Your task to perform on an android device: open app "Adobe Acrobat Reader: Edit PDF" Image 0: 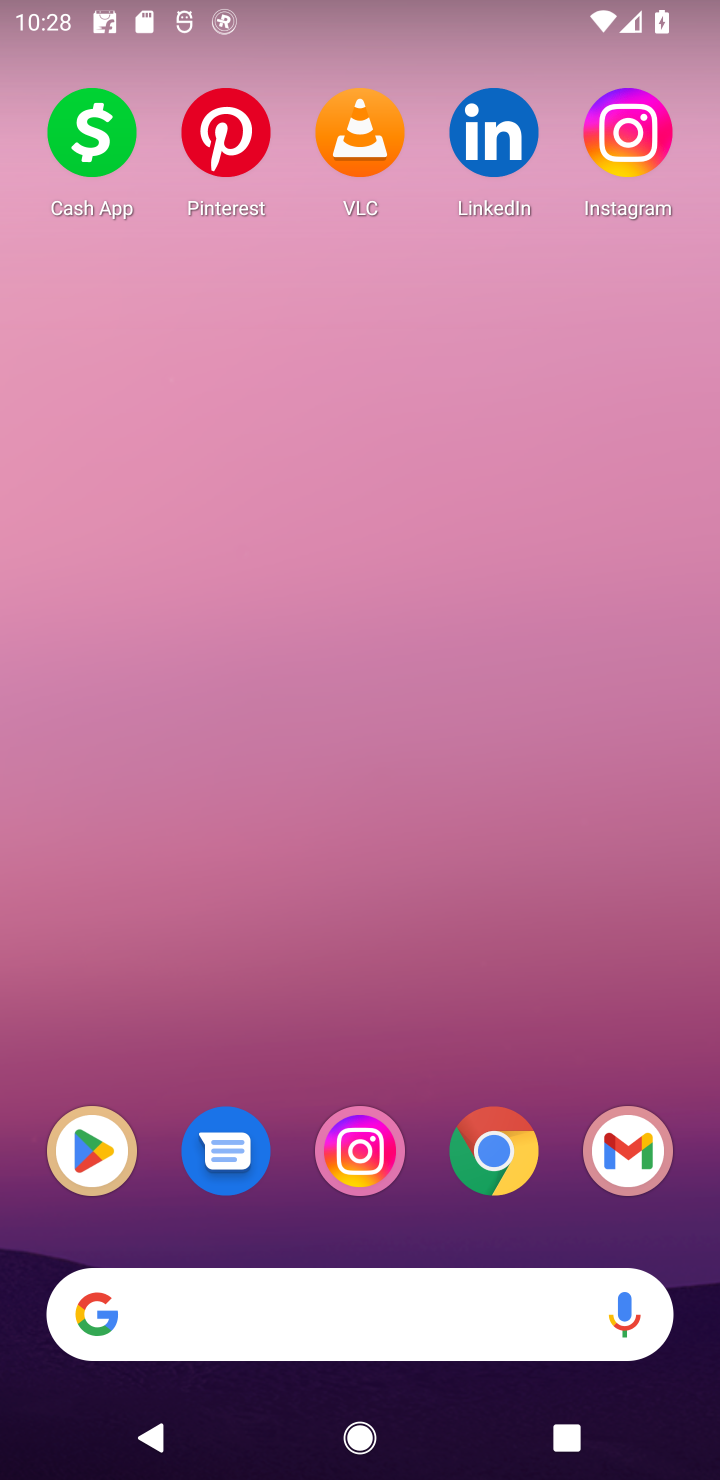
Step 0: click (76, 1121)
Your task to perform on an android device: open app "Adobe Acrobat Reader: Edit PDF" Image 1: 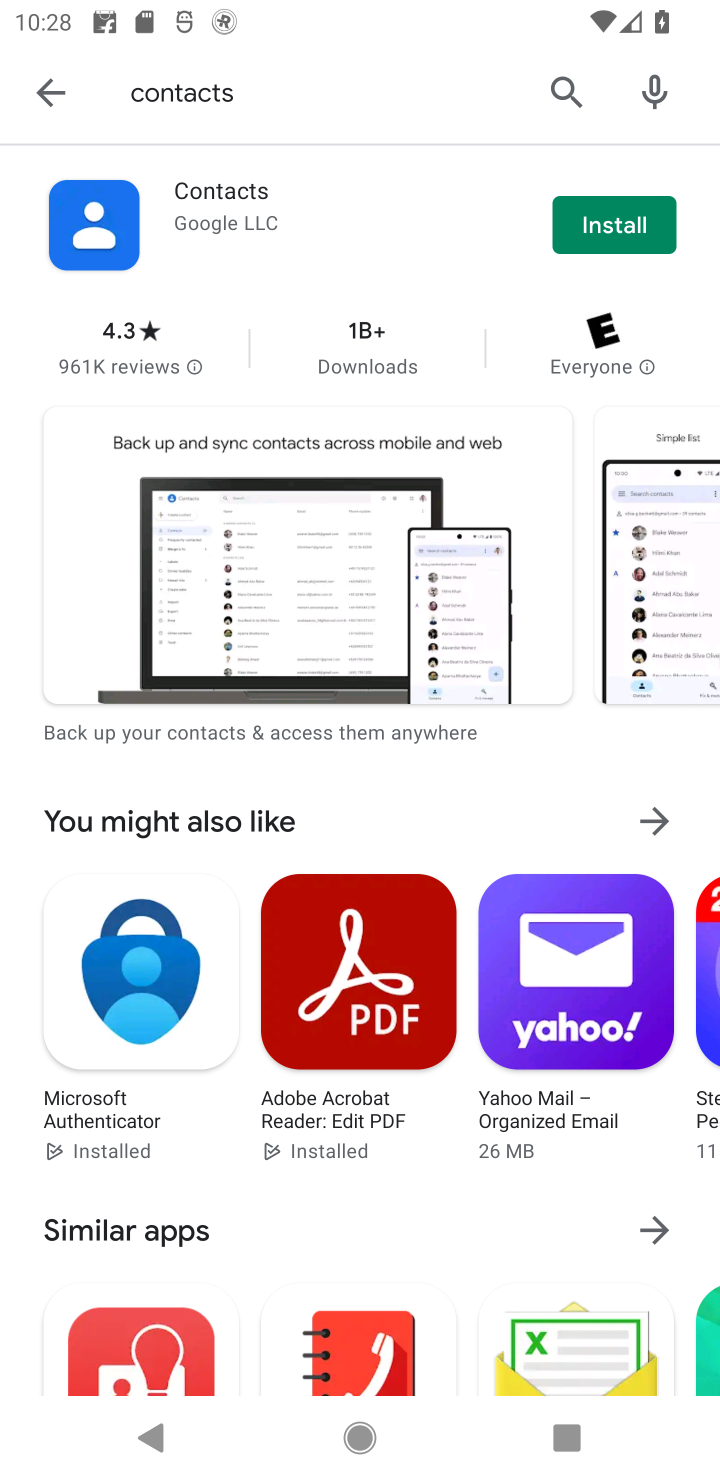
Step 1: click (565, 82)
Your task to perform on an android device: open app "Adobe Acrobat Reader: Edit PDF" Image 2: 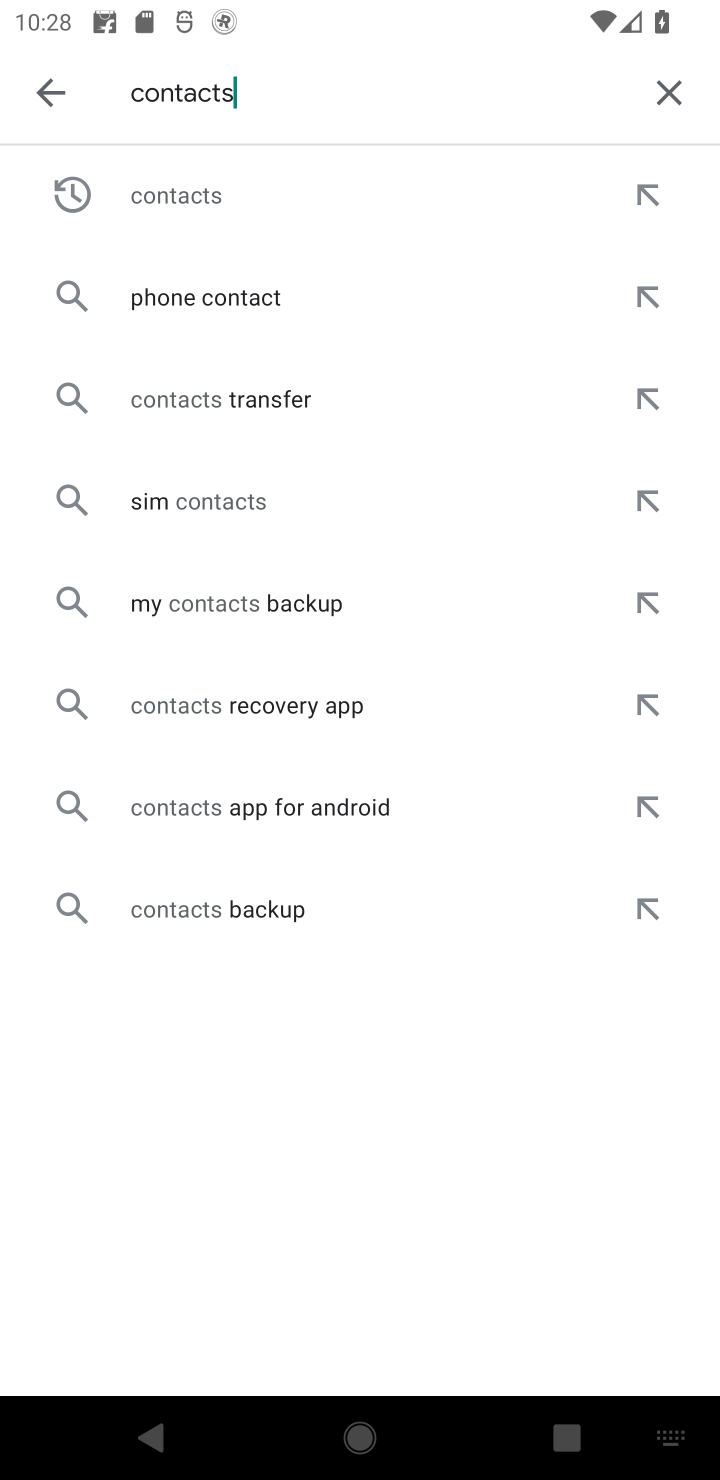
Step 2: click (671, 90)
Your task to perform on an android device: open app "Adobe Acrobat Reader: Edit PDF" Image 3: 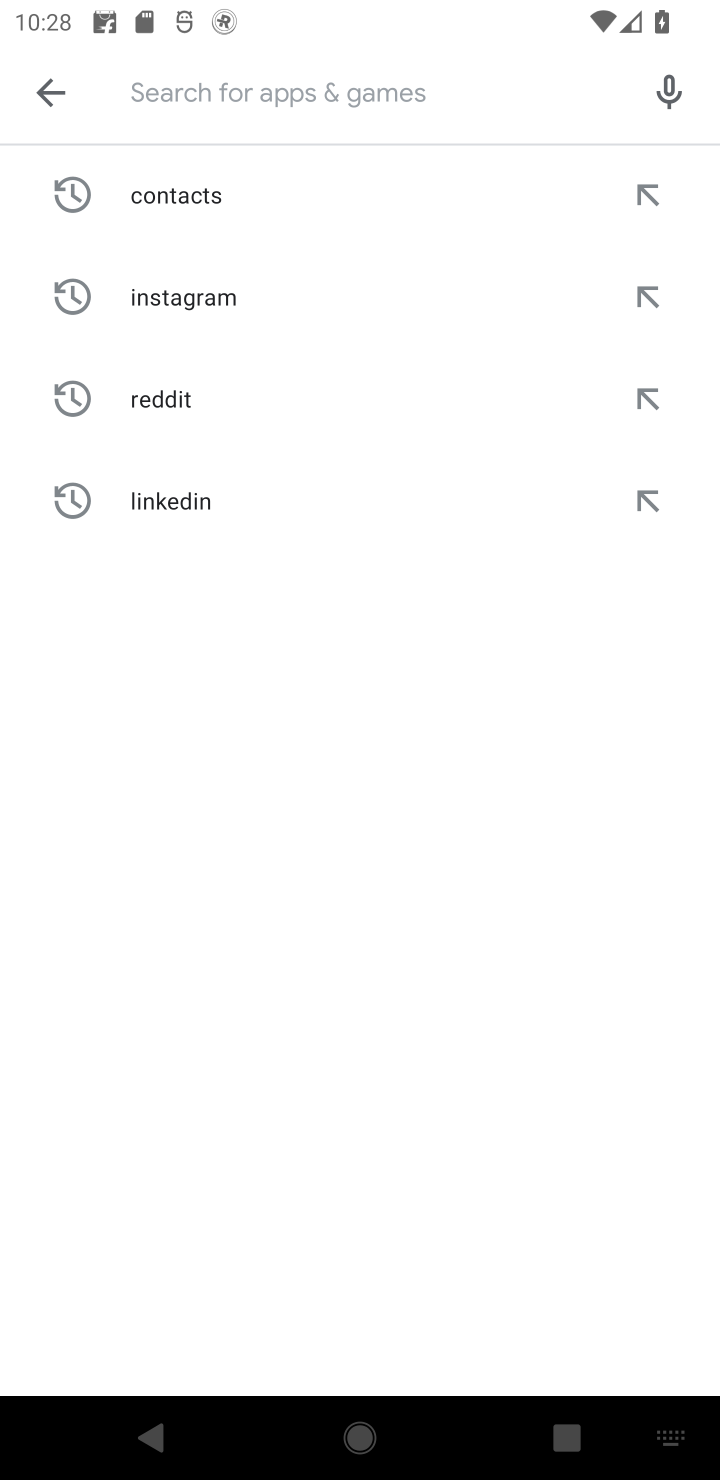
Step 3: type "Adobe Acrobat Reader: Edit PDF"
Your task to perform on an android device: open app "Adobe Acrobat Reader: Edit PDF" Image 4: 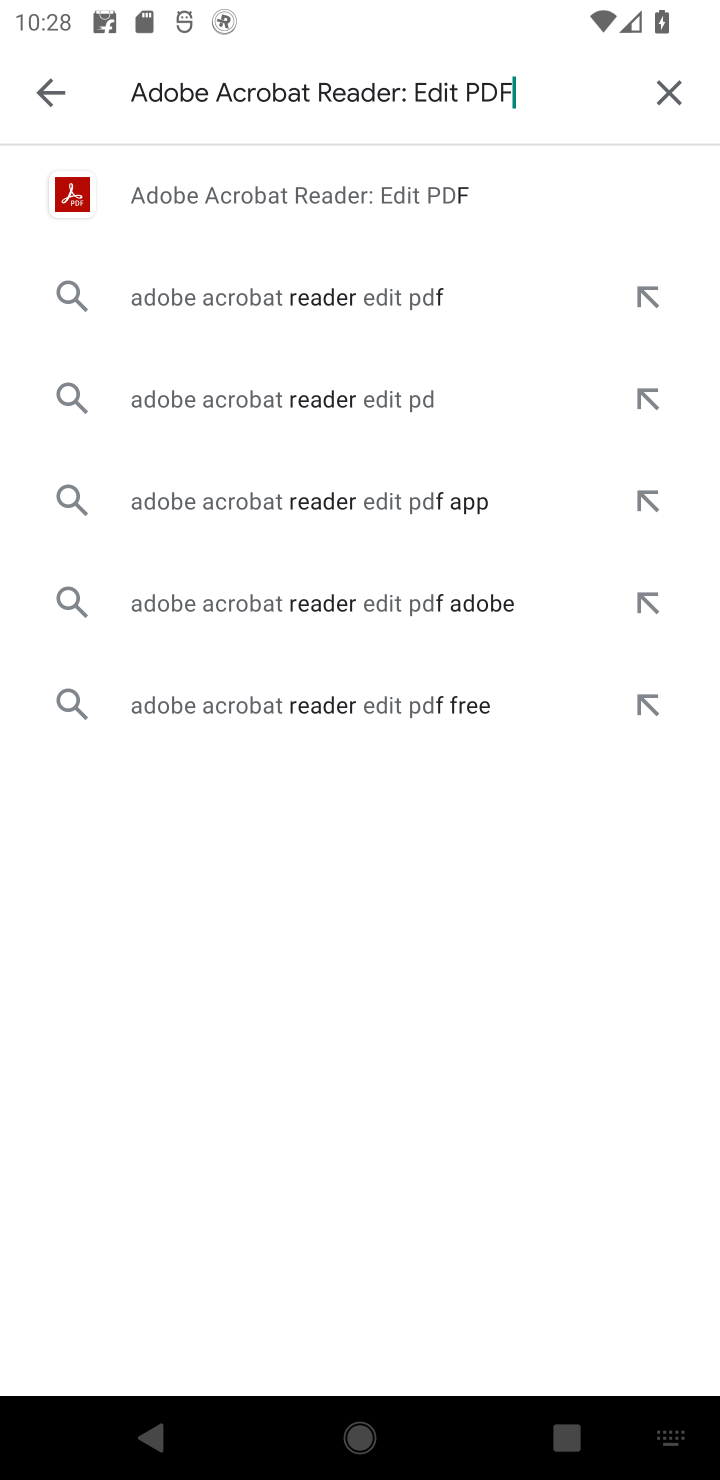
Step 4: type ""
Your task to perform on an android device: open app "Adobe Acrobat Reader: Edit PDF" Image 5: 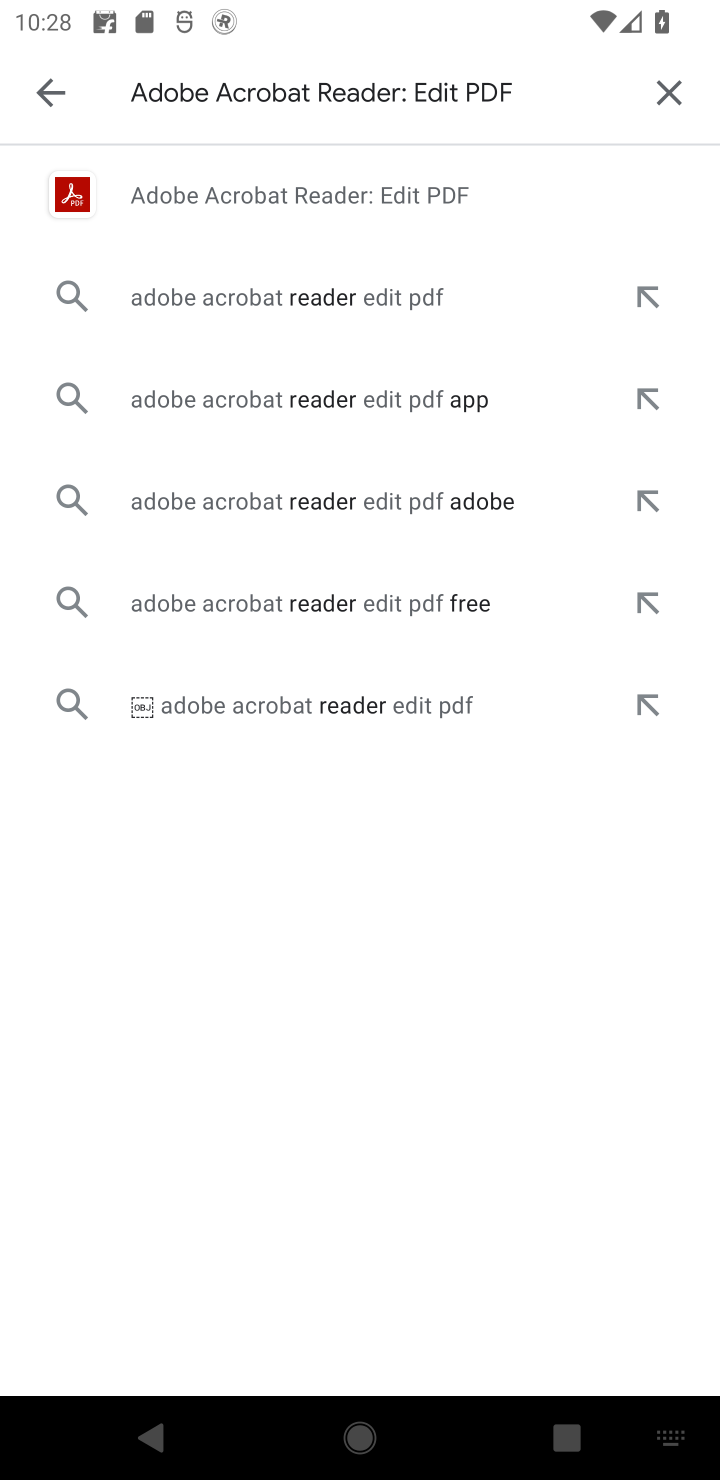
Step 5: click (250, 215)
Your task to perform on an android device: open app "Adobe Acrobat Reader: Edit PDF" Image 6: 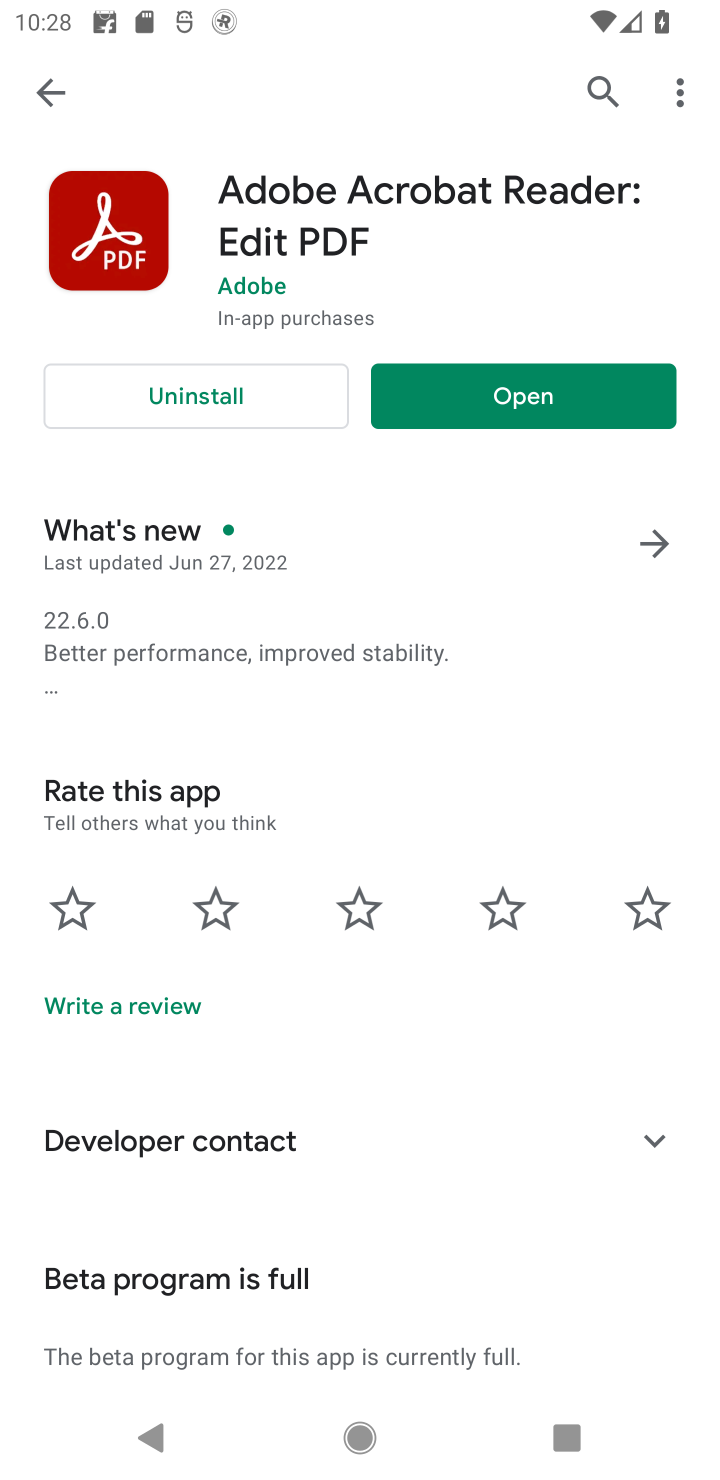
Step 6: click (591, 381)
Your task to perform on an android device: open app "Adobe Acrobat Reader: Edit PDF" Image 7: 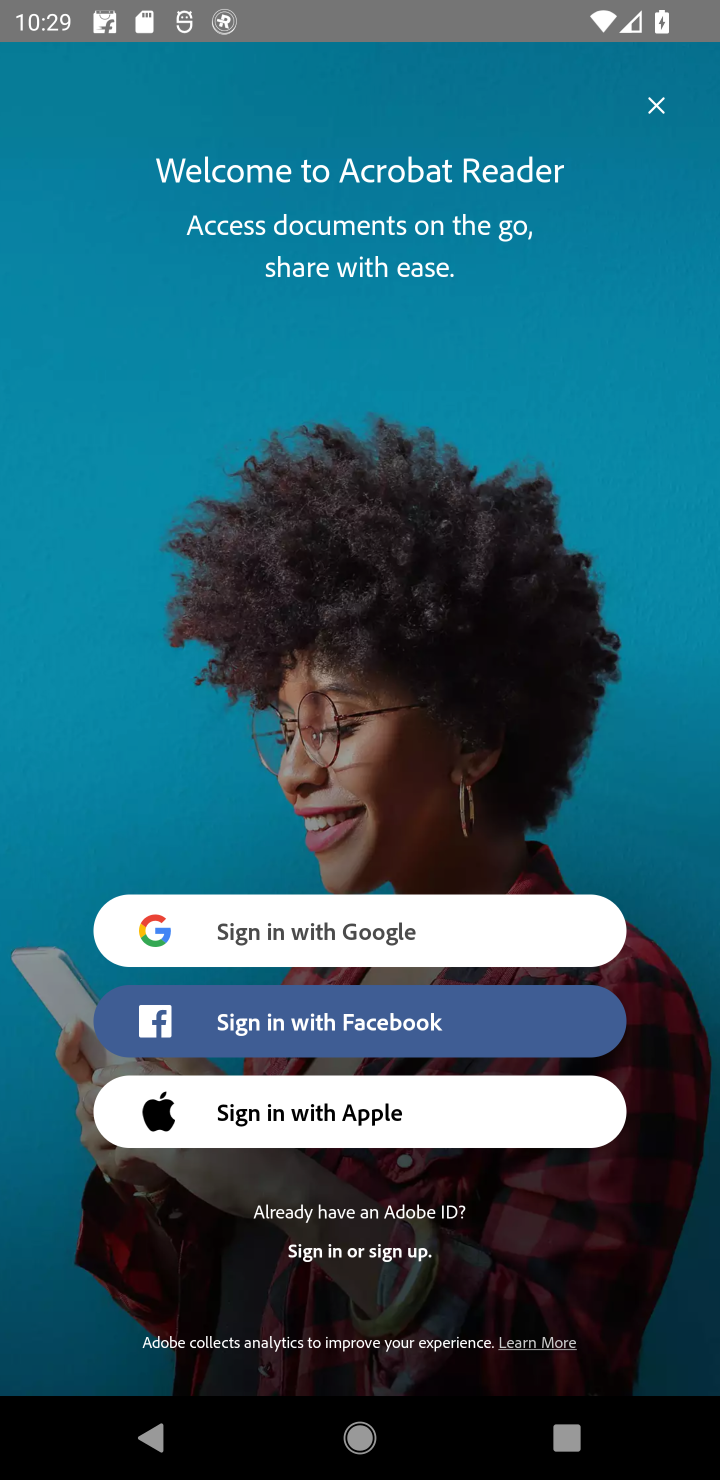
Step 7: task complete